Your task to perform on an android device: Open the calendar app, open the side menu, and click the "Day" option Image 0: 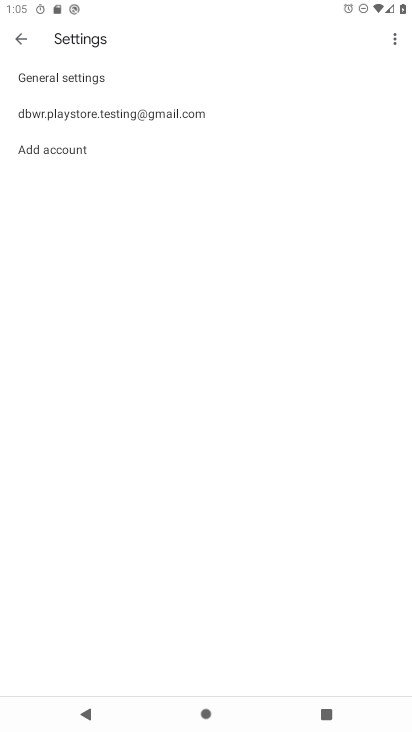
Step 0: press home button
Your task to perform on an android device: Open the calendar app, open the side menu, and click the "Day" option Image 1: 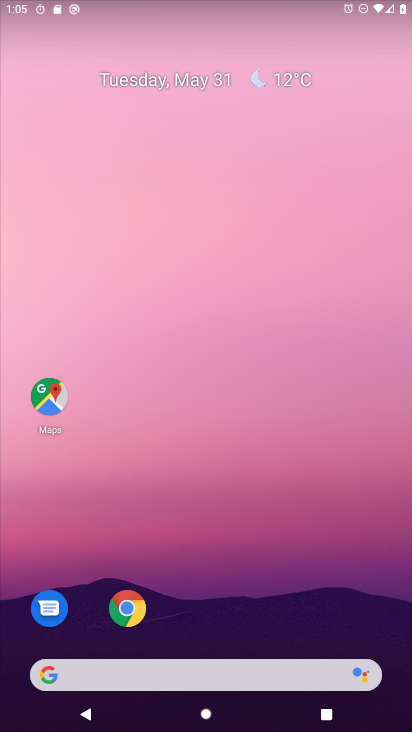
Step 1: drag from (300, 623) to (280, 0)
Your task to perform on an android device: Open the calendar app, open the side menu, and click the "Day" option Image 2: 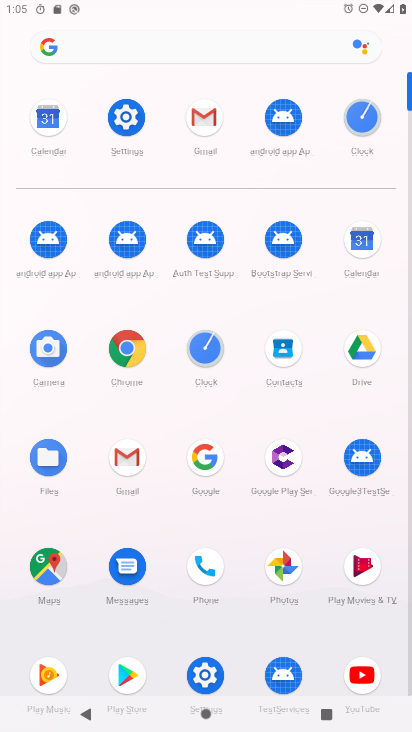
Step 2: click (50, 122)
Your task to perform on an android device: Open the calendar app, open the side menu, and click the "Day" option Image 3: 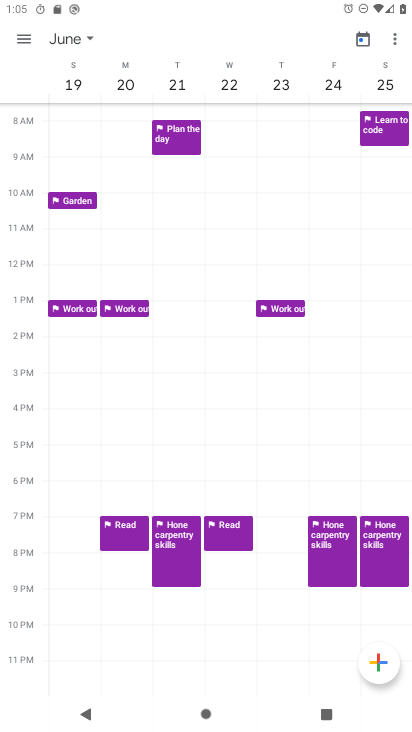
Step 3: click (21, 37)
Your task to perform on an android device: Open the calendar app, open the side menu, and click the "Day" option Image 4: 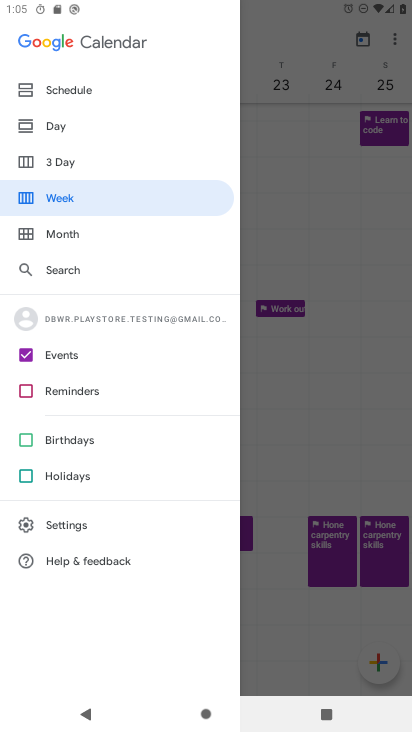
Step 4: click (39, 132)
Your task to perform on an android device: Open the calendar app, open the side menu, and click the "Day" option Image 5: 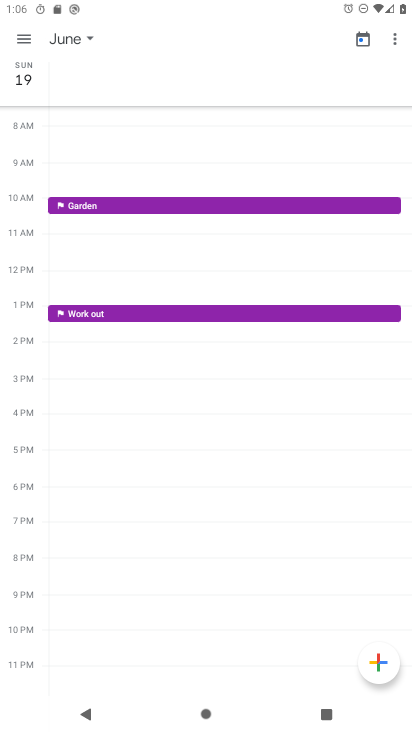
Step 5: task complete